Your task to perform on an android device: move a message to another label in the gmail app Image 0: 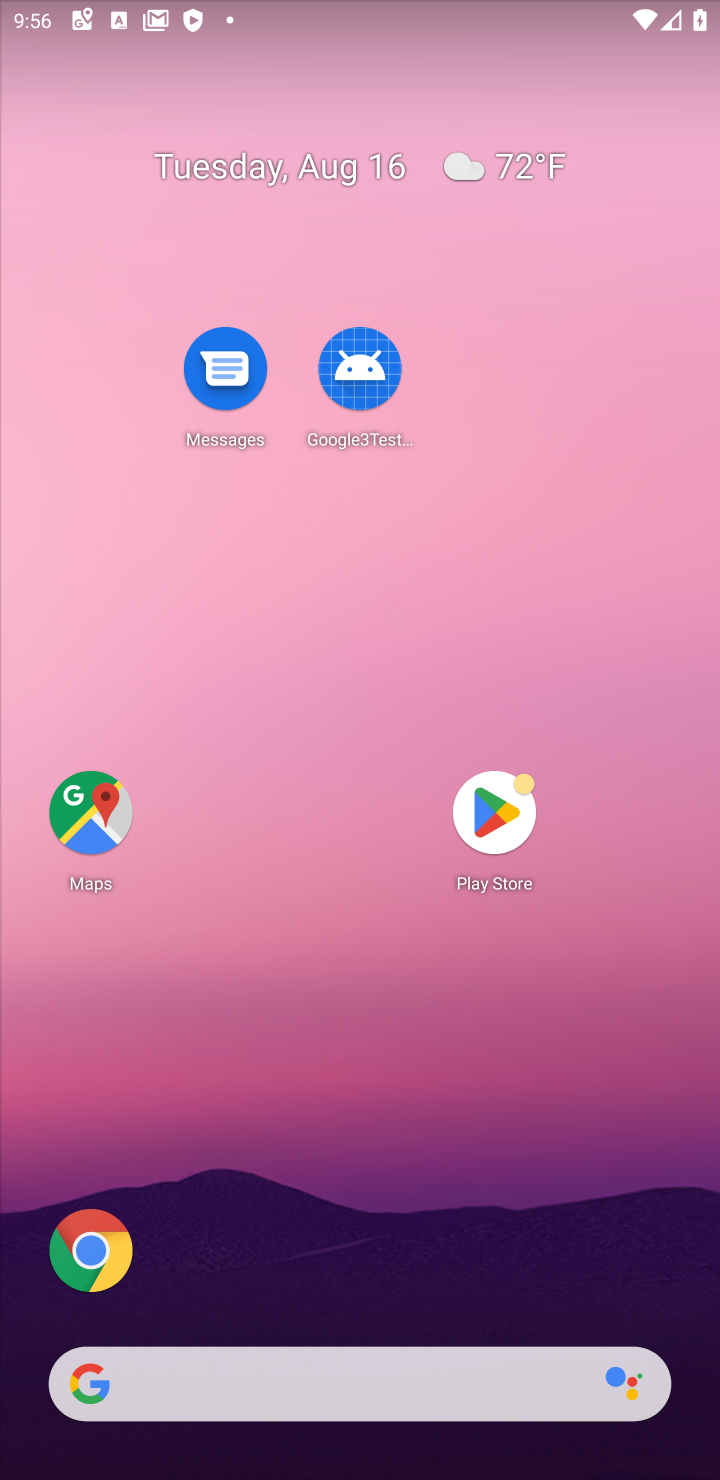
Step 0: drag from (335, 1299) to (572, 398)
Your task to perform on an android device: move a message to another label in the gmail app Image 1: 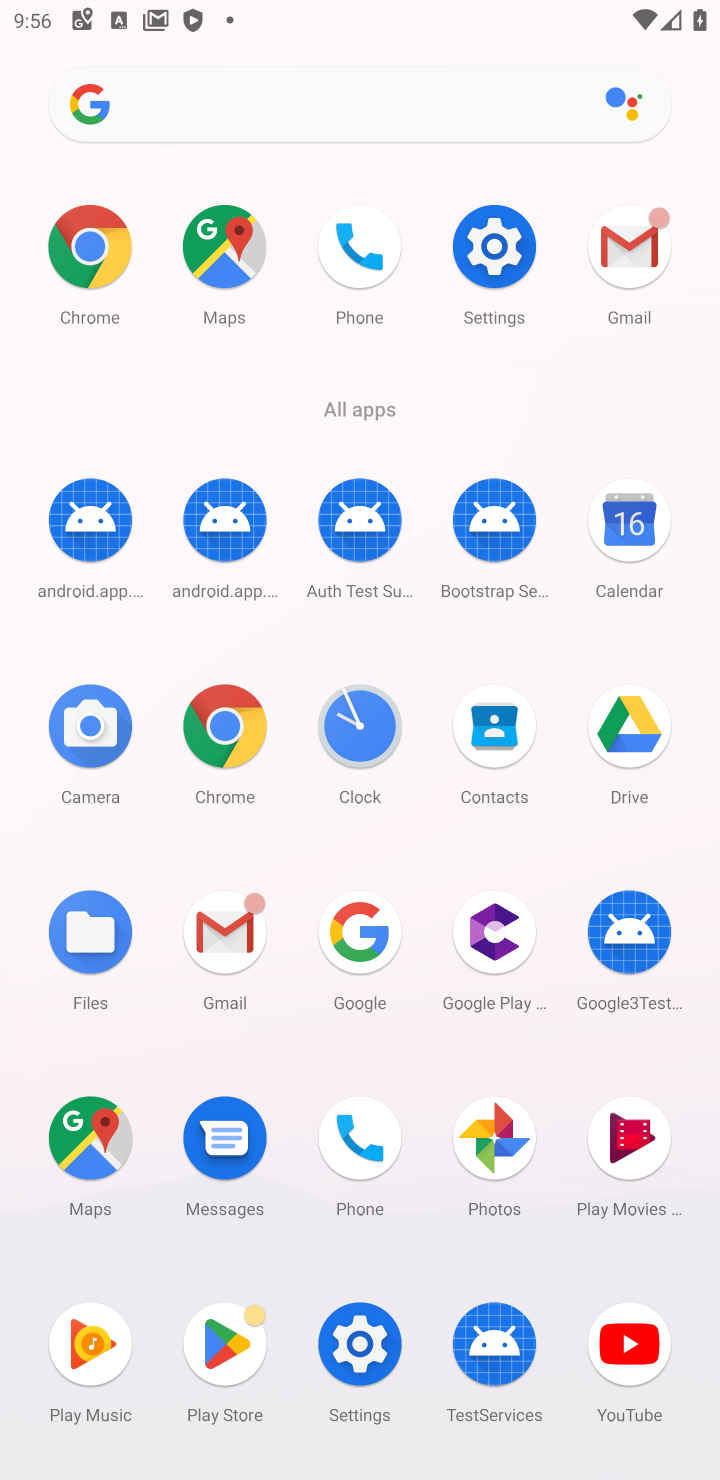
Step 1: click (625, 269)
Your task to perform on an android device: move a message to another label in the gmail app Image 2: 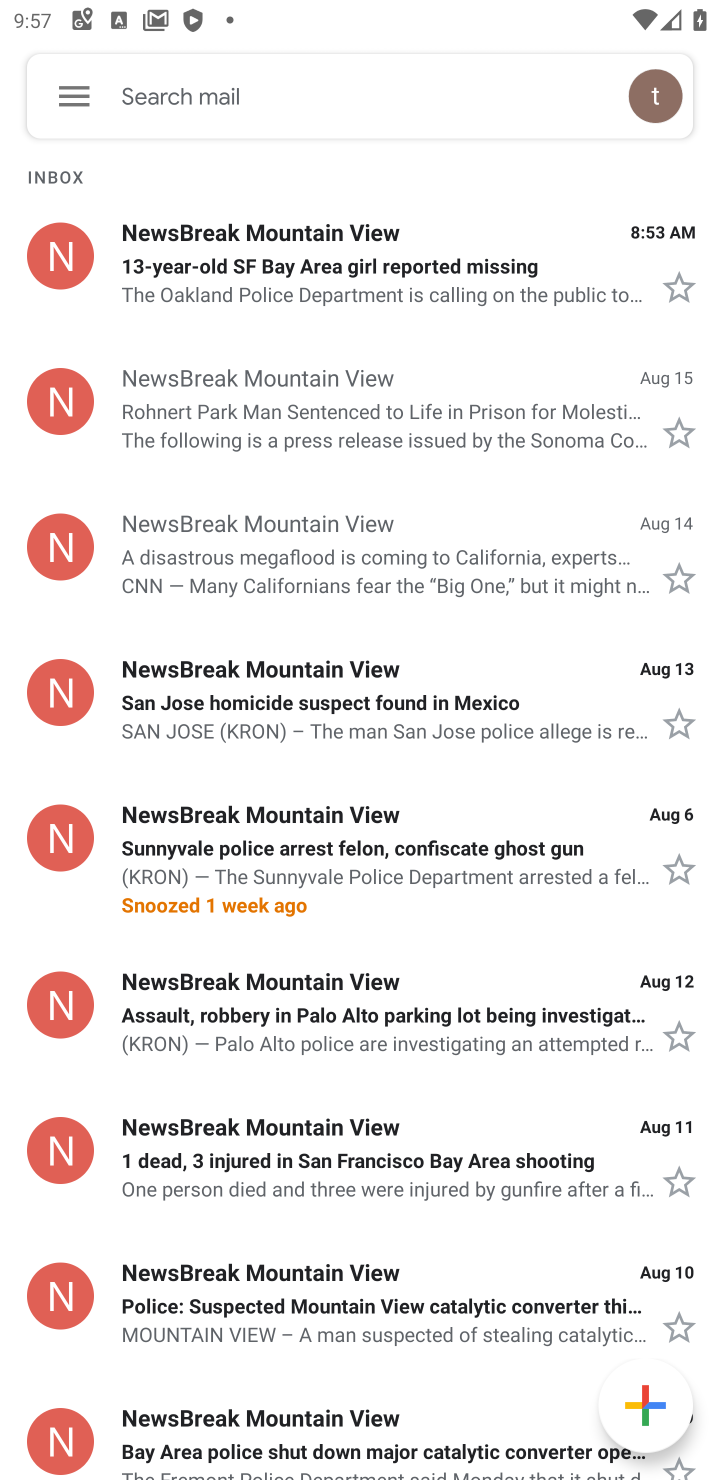
Step 2: click (60, 247)
Your task to perform on an android device: move a message to another label in the gmail app Image 3: 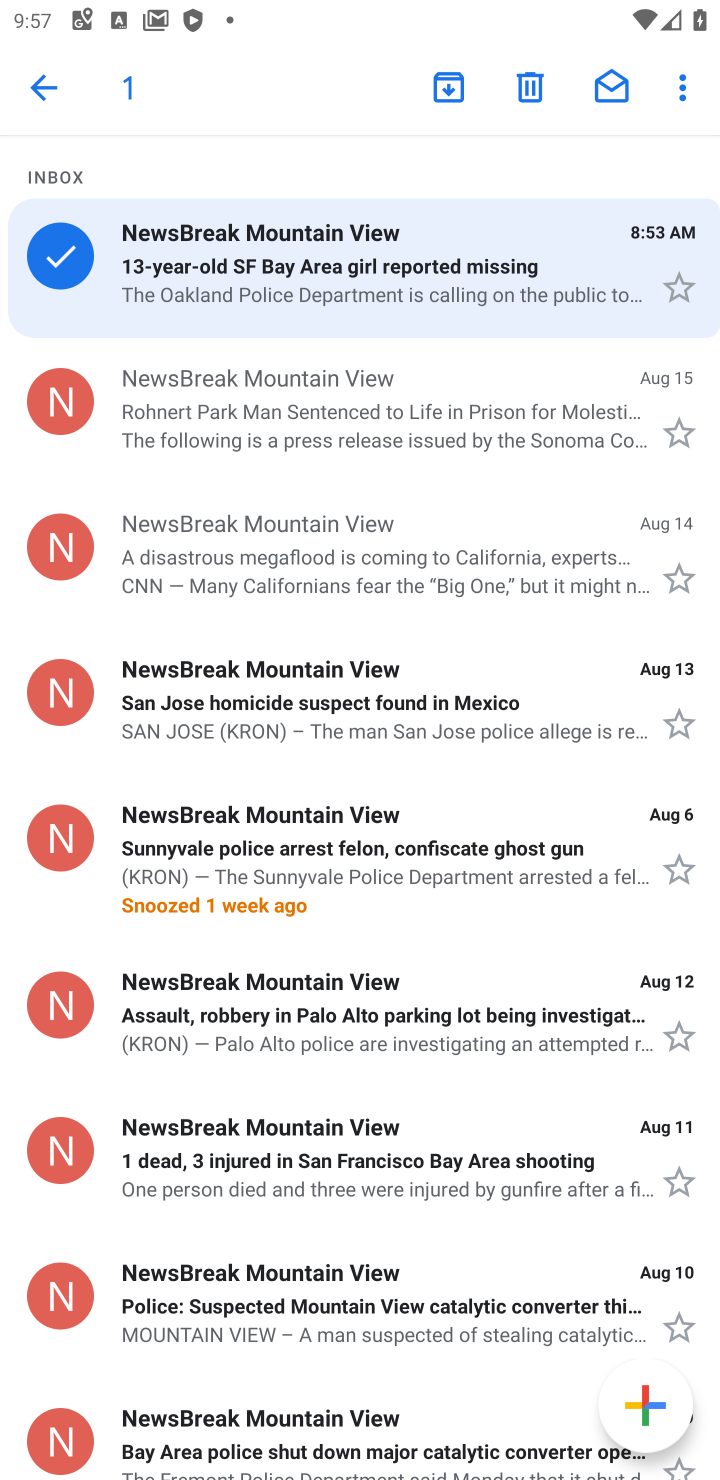
Step 3: click (698, 74)
Your task to perform on an android device: move a message to another label in the gmail app Image 4: 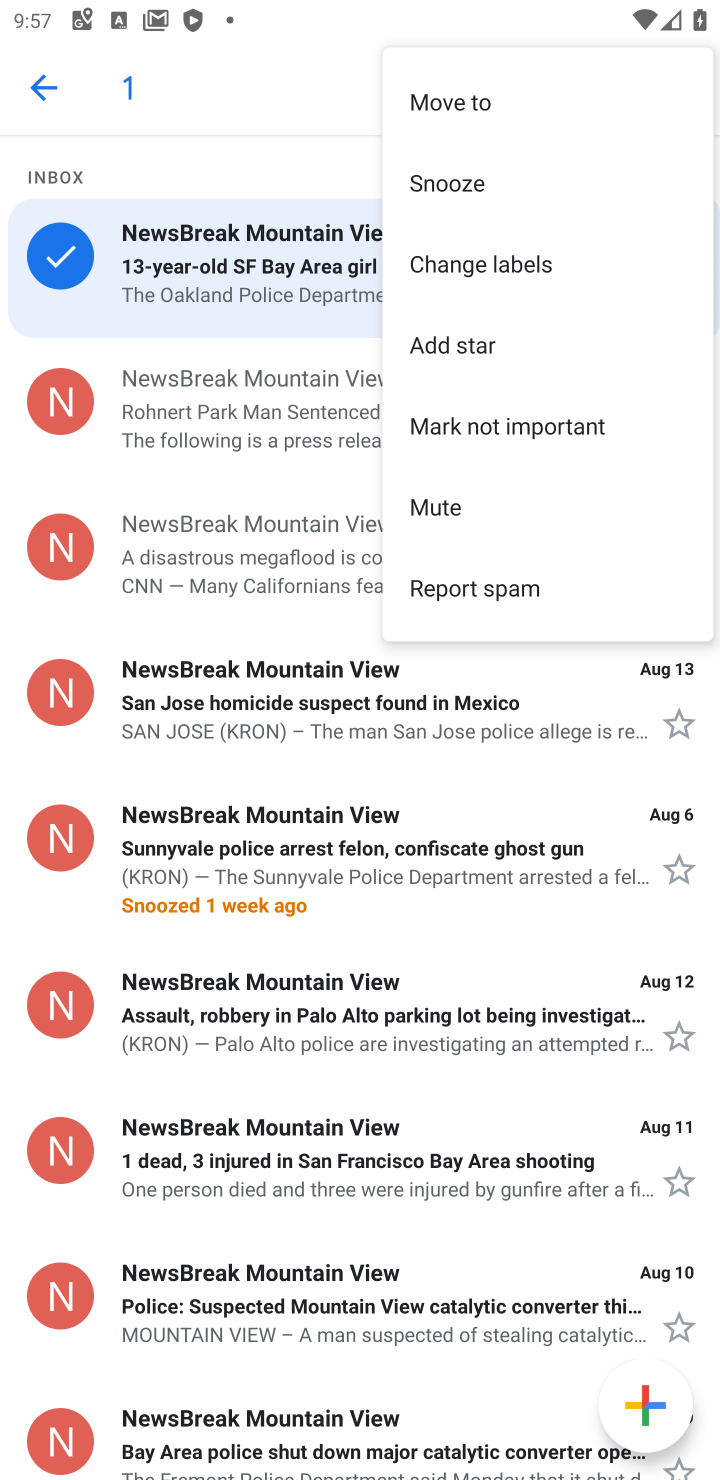
Step 4: click (543, 260)
Your task to perform on an android device: move a message to another label in the gmail app Image 5: 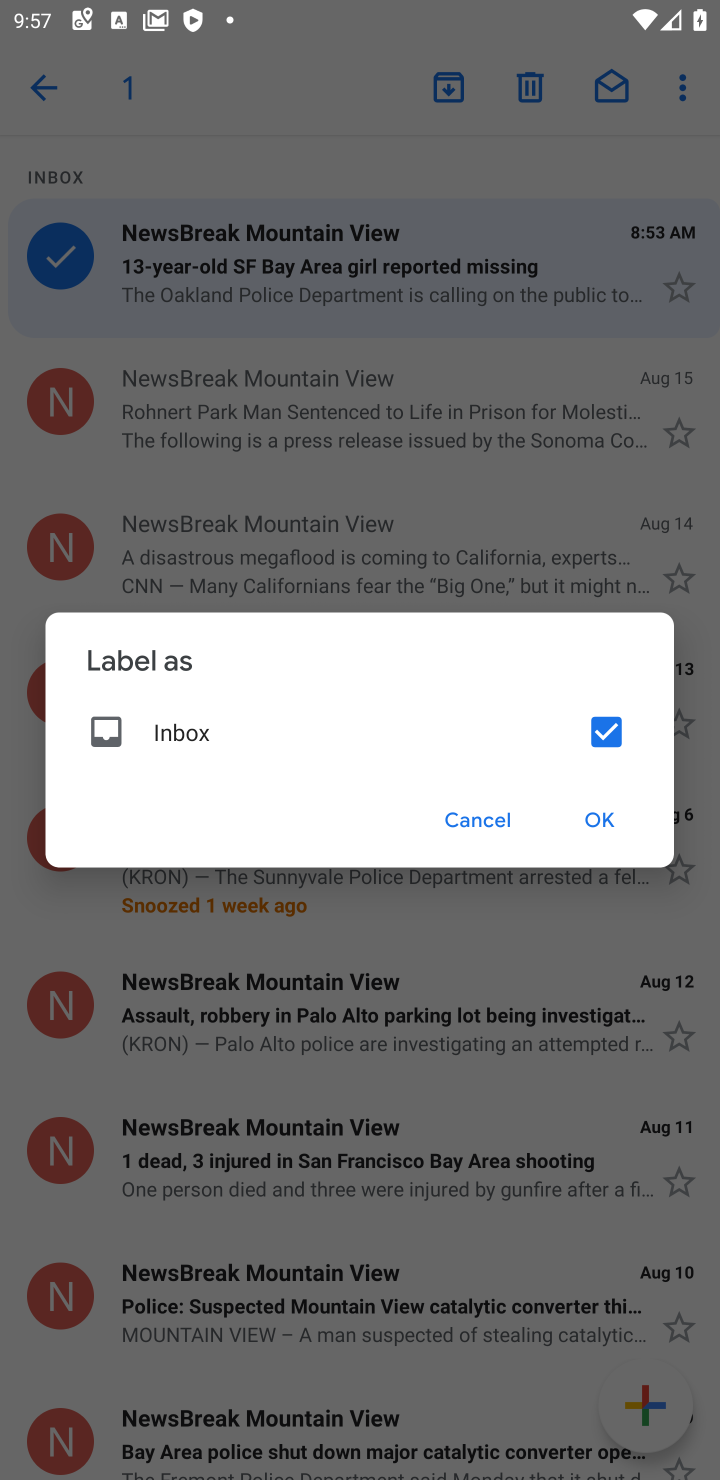
Step 5: click (583, 817)
Your task to perform on an android device: move a message to another label in the gmail app Image 6: 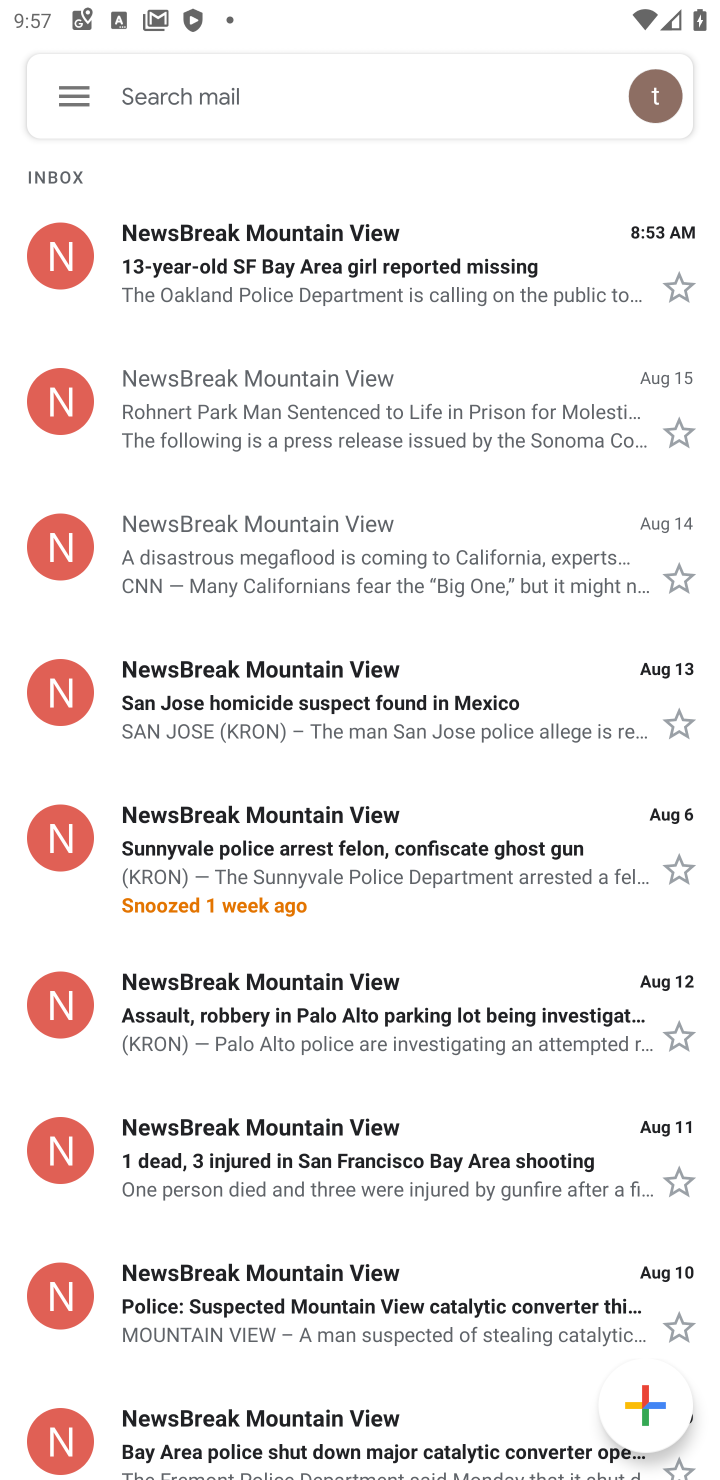
Step 6: task complete